Your task to perform on an android device: What's on my calendar today? Image 0: 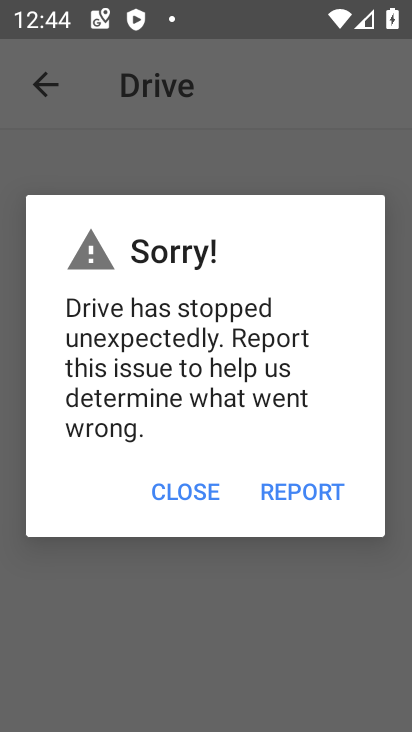
Step 0: press home button
Your task to perform on an android device: What's on my calendar today? Image 1: 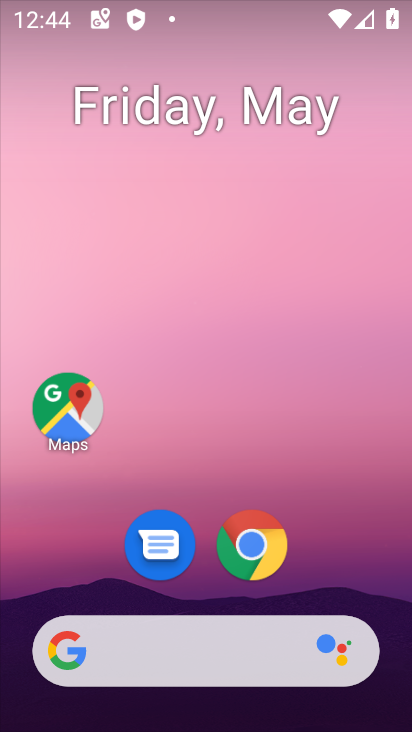
Step 1: drag from (325, 538) to (360, 154)
Your task to perform on an android device: What's on my calendar today? Image 2: 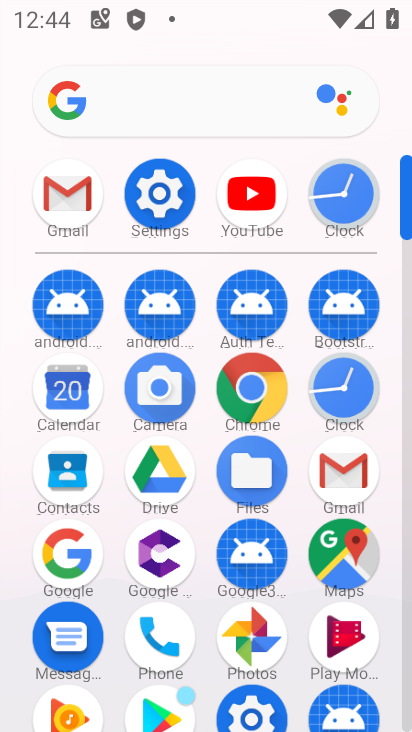
Step 2: click (53, 389)
Your task to perform on an android device: What's on my calendar today? Image 3: 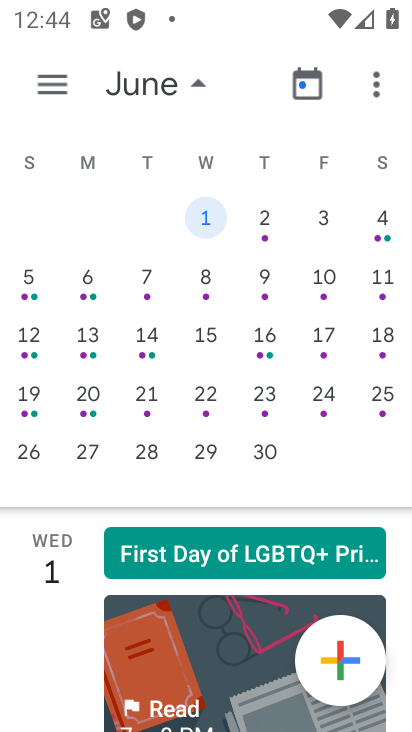
Step 3: task complete